Your task to perform on an android device: Open CNN.com Image 0: 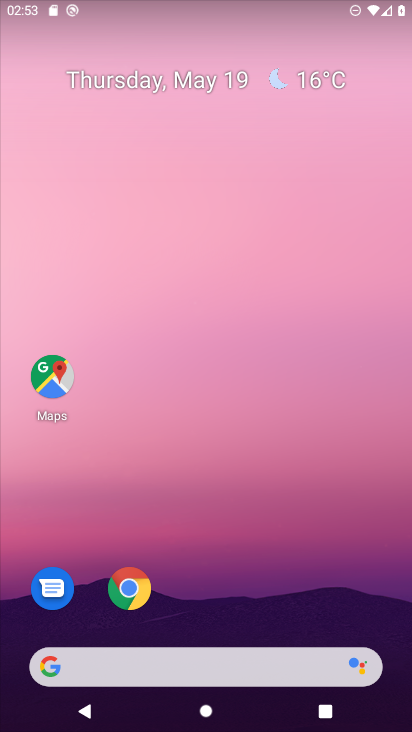
Step 0: click (135, 590)
Your task to perform on an android device: Open CNN.com Image 1: 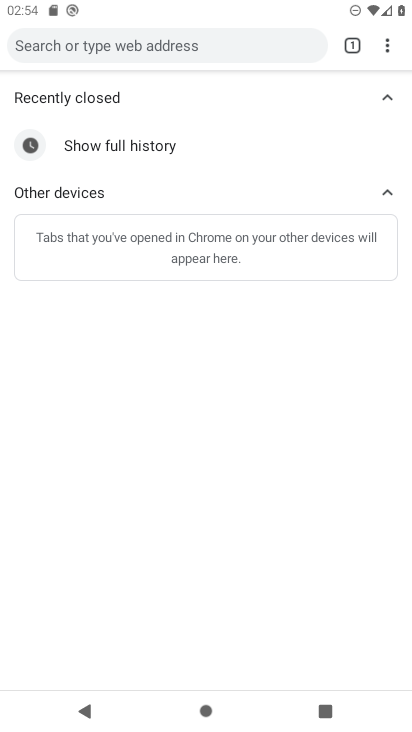
Step 1: click (98, 45)
Your task to perform on an android device: Open CNN.com Image 2: 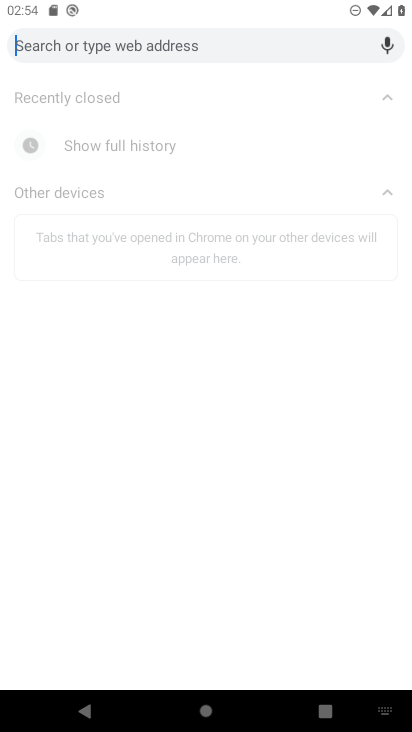
Step 2: type "cnn.com"
Your task to perform on an android device: Open CNN.com Image 3: 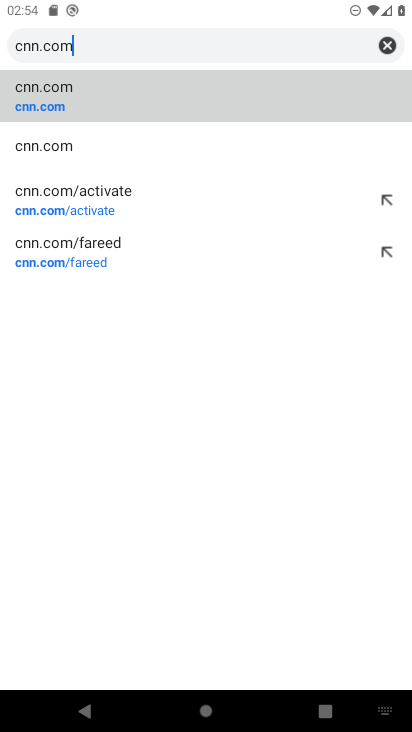
Step 3: click (47, 103)
Your task to perform on an android device: Open CNN.com Image 4: 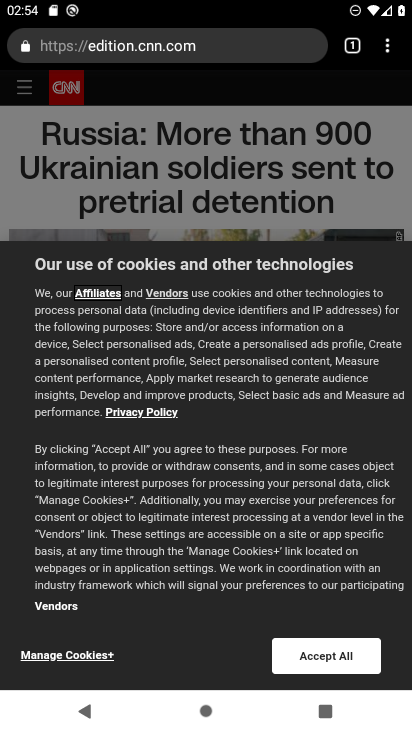
Step 4: task complete